Your task to perform on an android device: toggle show notifications on the lock screen Image 0: 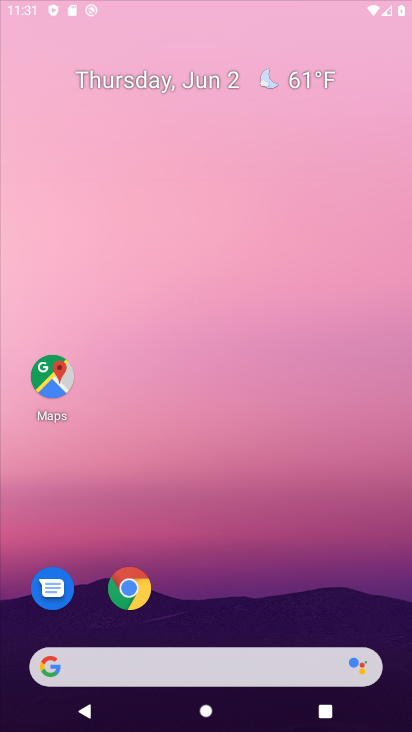
Step 0: drag from (257, 183) to (257, 145)
Your task to perform on an android device: toggle show notifications on the lock screen Image 1: 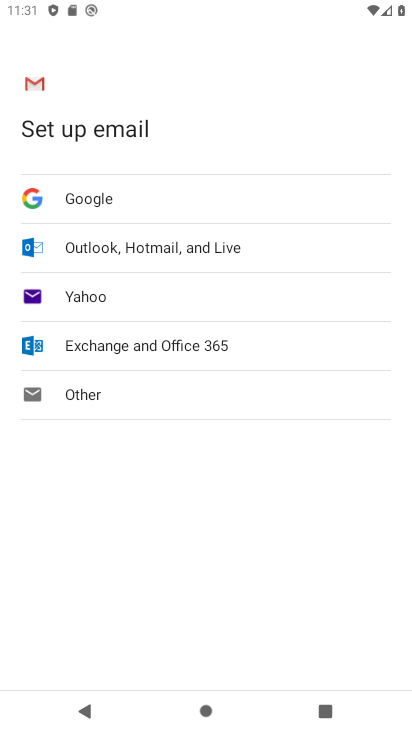
Step 1: press home button
Your task to perform on an android device: toggle show notifications on the lock screen Image 2: 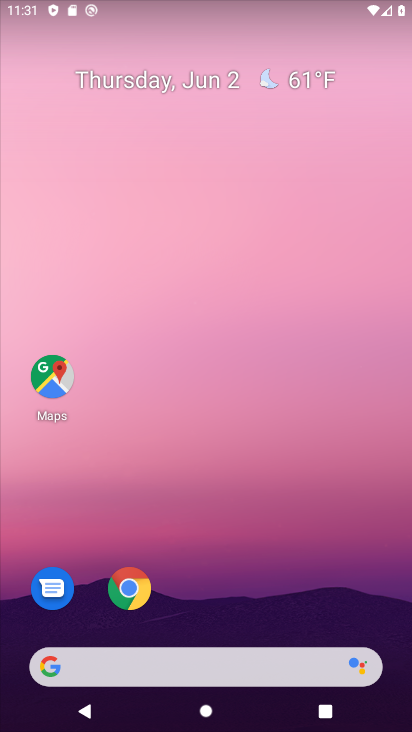
Step 2: drag from (257, 580) to (265, 157)
Your task to perform on an android device: toggle show notifications on the lock screen Image 3: 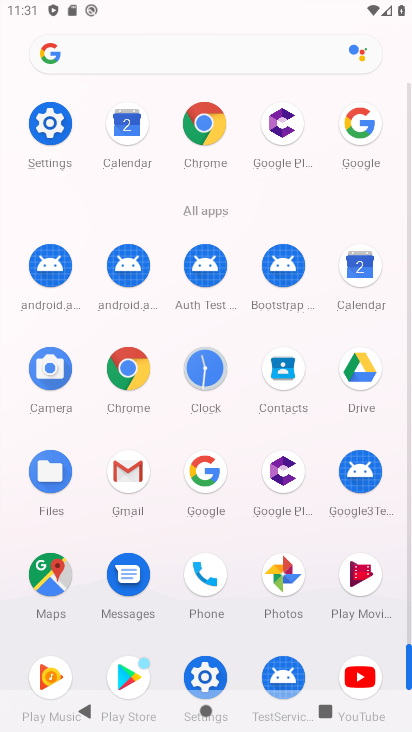
Step 3: drag from (244, 199) to (246, 22)
Your task to perform on an android device: toggle show notifications on the lock screen Image 4: 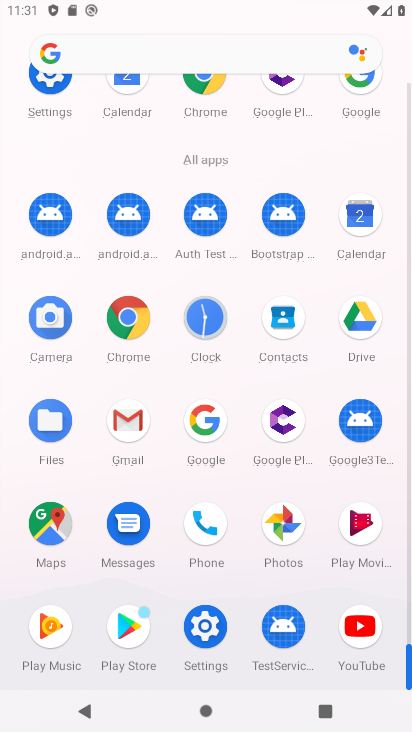
Step 4: click (203, 622)
Your task to perform on an android device: toggle show notifications on the lock screen Image 5: 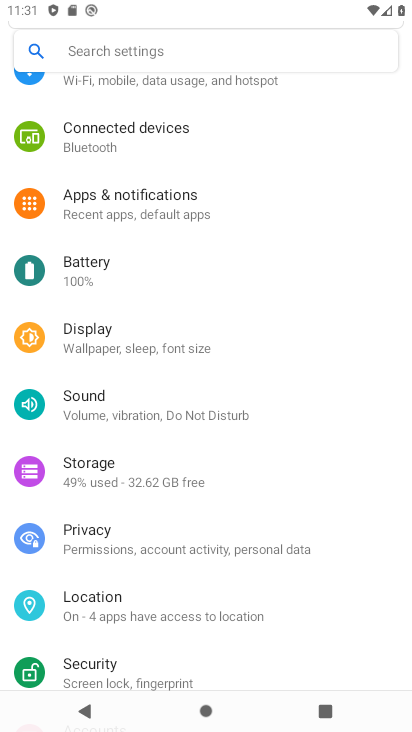
Step 5: drag from (239, 228) to (248, 510)
Your task to perform on an android device: toggle show notifications on the lock screen Image 6: 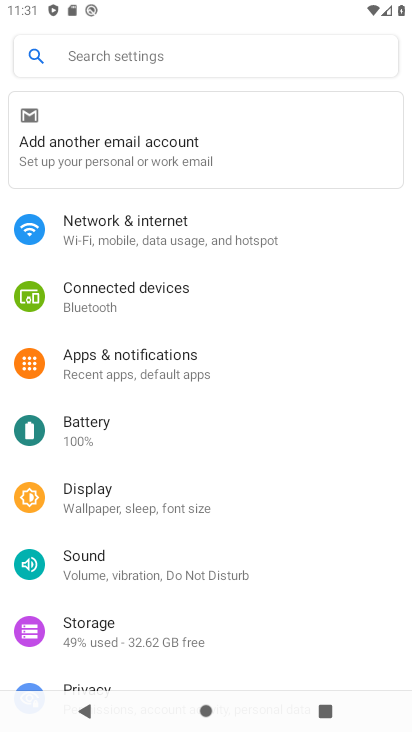
Step 6: click (212, 383)
Your task to perform on an android device: toggle show notifications on the lock screen Image 7: 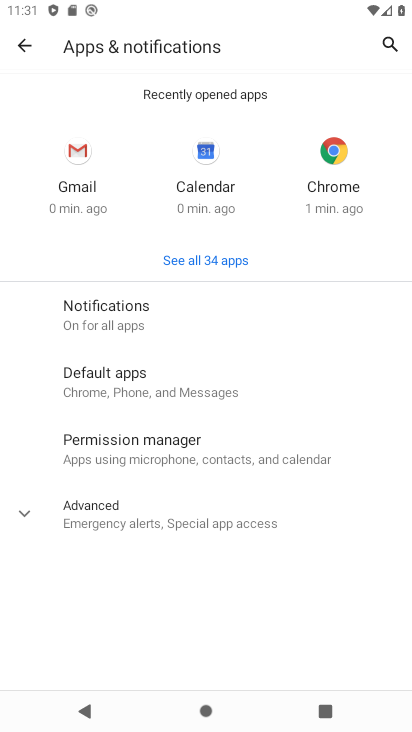
Step 7: click (207, 309)
Your task to perform on an android device: toggle show notifications on the lock screen Image 8: 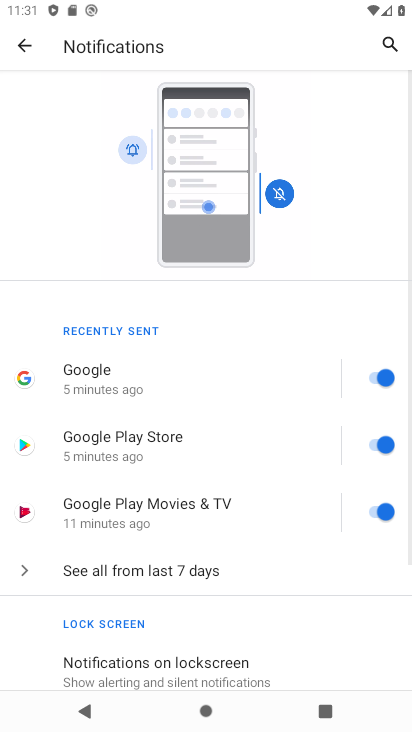
Step 8: drag from (239, 629) to (249, 345)
Your task to perform on an android device: toggle show notifications on the lock screen Image 9: 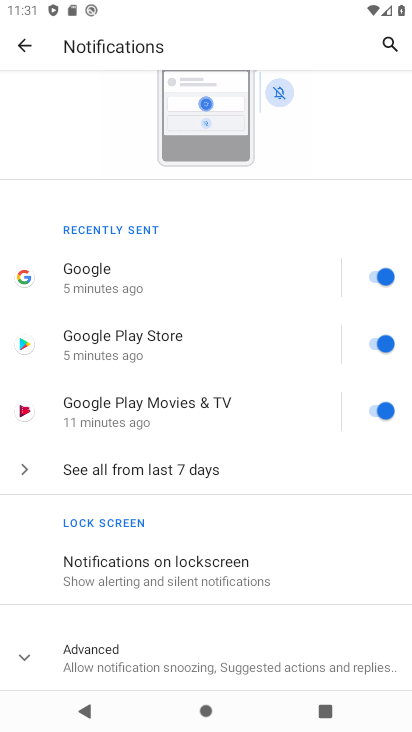
Step 9: click (216, 580)
Your task to perform on an android device: toggle show notifications on the lock screen Image 10: 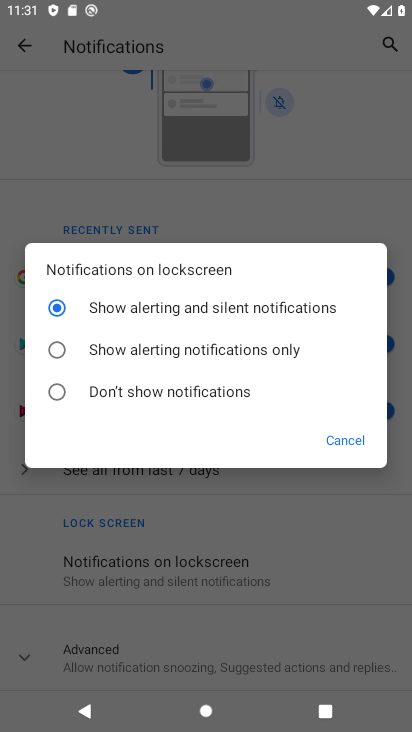
Step 10: click (198, 392)
Your task to perform on an android device: toggle show notifications on the lock screen Image 11: 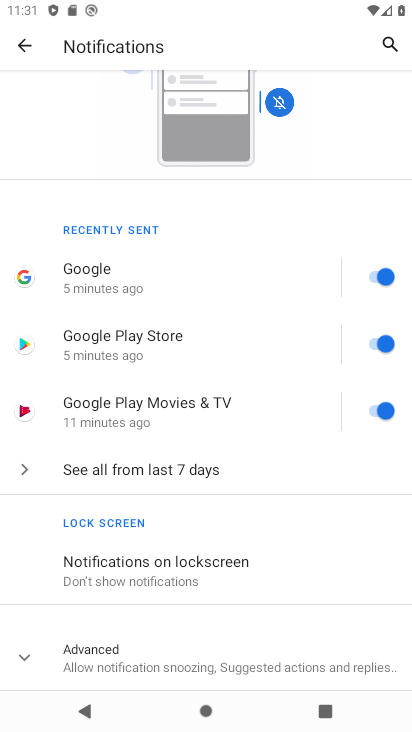
Step 11: task complete